Your task to perform on an android device: Go to sound settings Image 0: 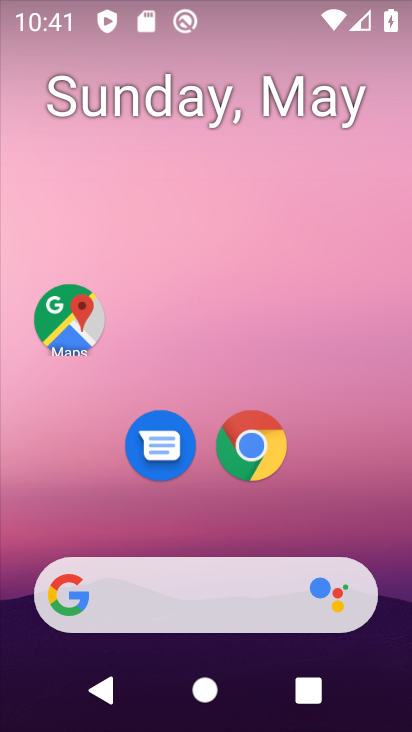
Step 0: drag from (239, 566) to (310, 9)
Your task to perform on an android device: Go to sound settings Image 1: 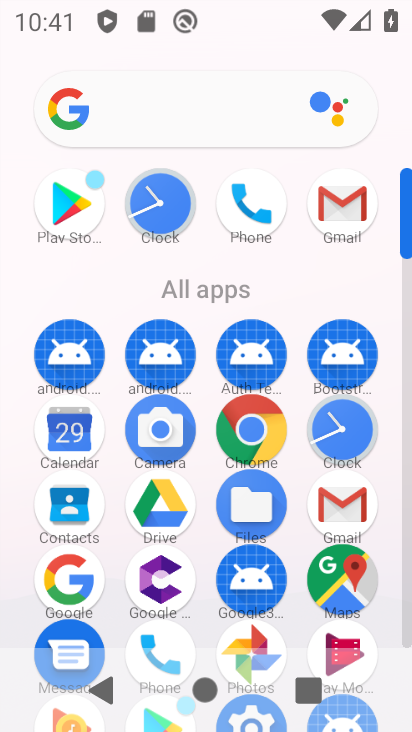
Step 1: drag from (218, 569) to (303, 68)
Your task to perform on an android device: Go to sound settings Image 2: 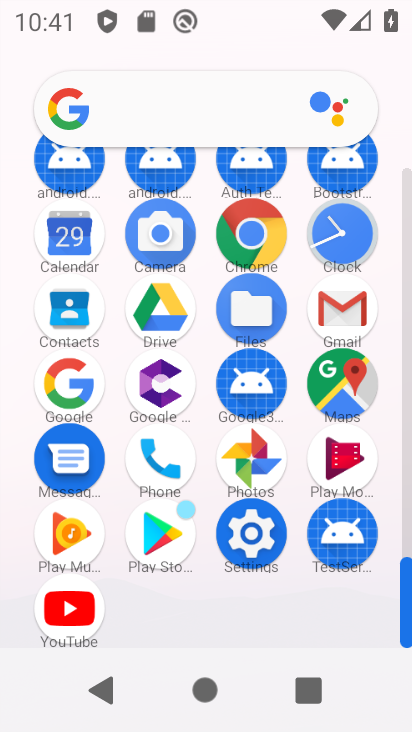
Step 2: click (247, 547)
Your task to perform on an android device: Go to sound settings Image 3: 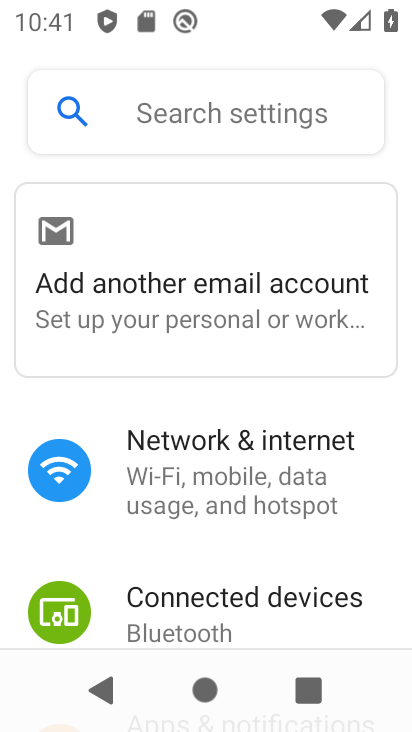
Step 3: drag from (222, 565) to (296, 62)
Your task to perform on an android device: Go to sound settings Image 4: 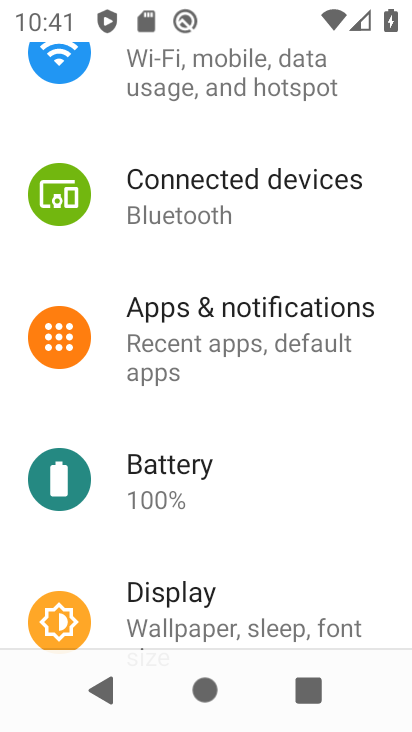
Step 4: drag from (211, 623) to (294, 128)
Your task to perform on an android device: Go to sound settings Image 5: 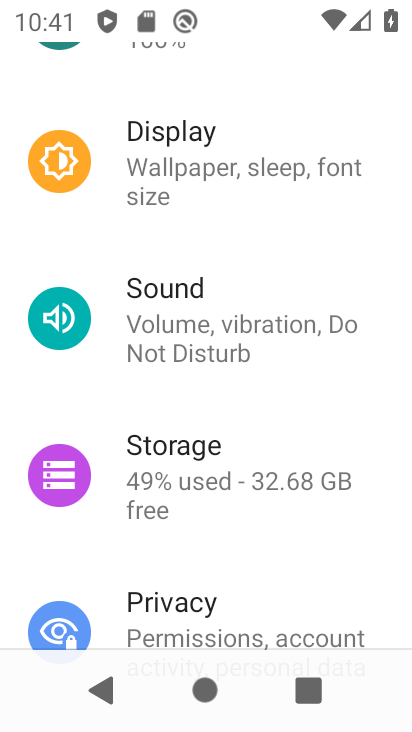
Step 5: click (185, 309)
Your task to perform on an android device: Go to sound settings Image 6: 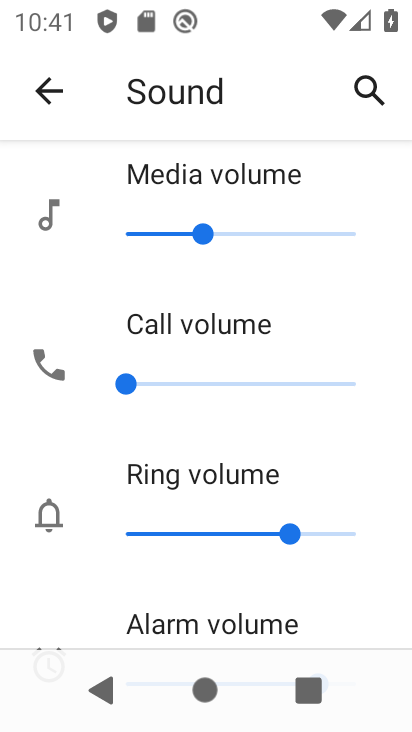
Step 6: task complete